Your task to perform on an android device: check storage Image 0: 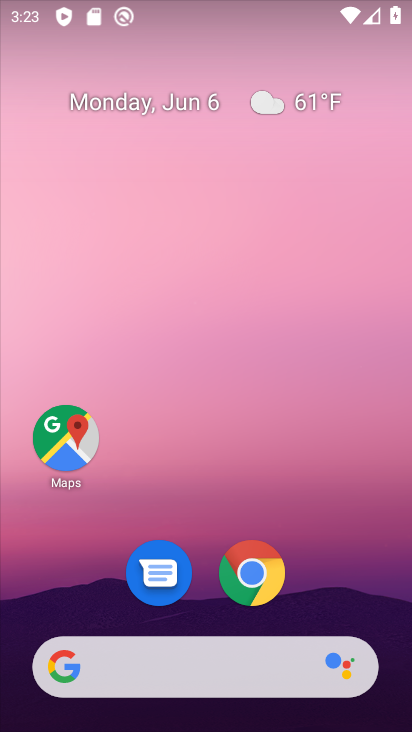
Step 0: drag from (189, 632) to (160, 197)
Your task to perform on an android device: check storage Image 1: 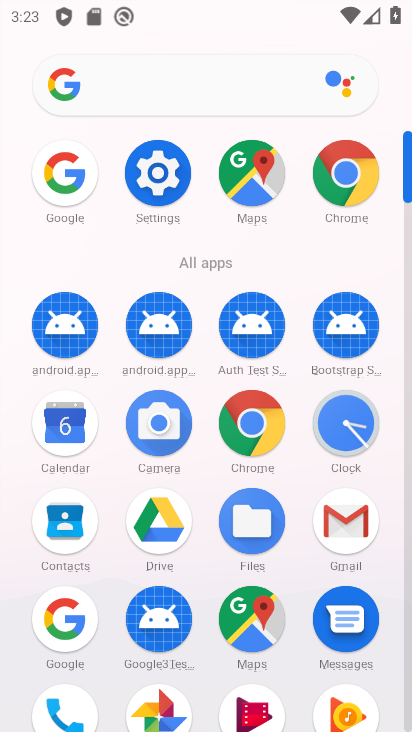
Step 1: click (161, 173)
Your task to perform on an android device: check storage Image 2: 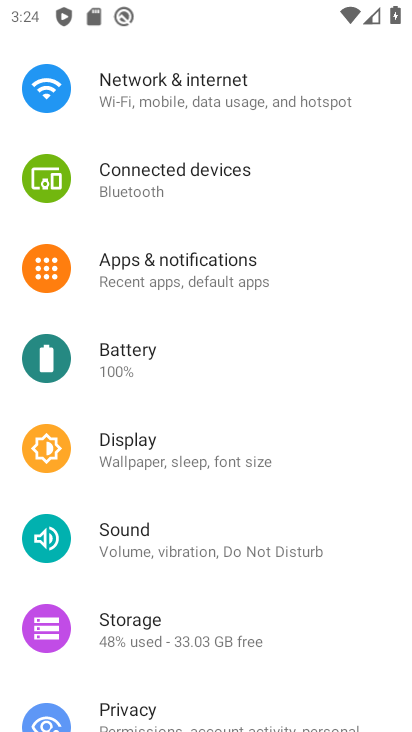
Step 2: click (139, 633)
Your task to perform on an android device: check storage Image 3: 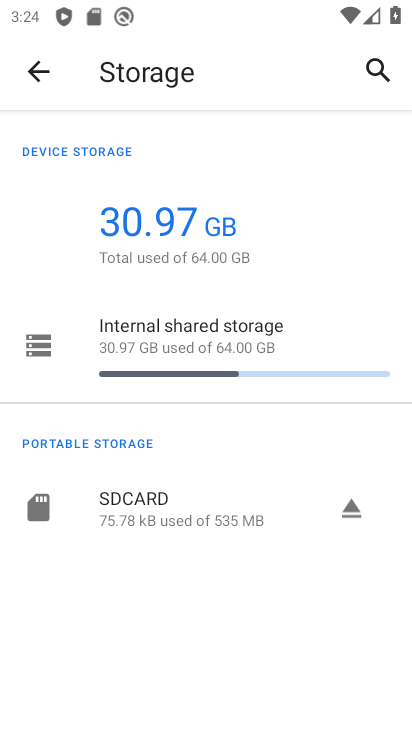
Step 3: task complete